Your task to perform on an android device: Open Android settings Image 0: 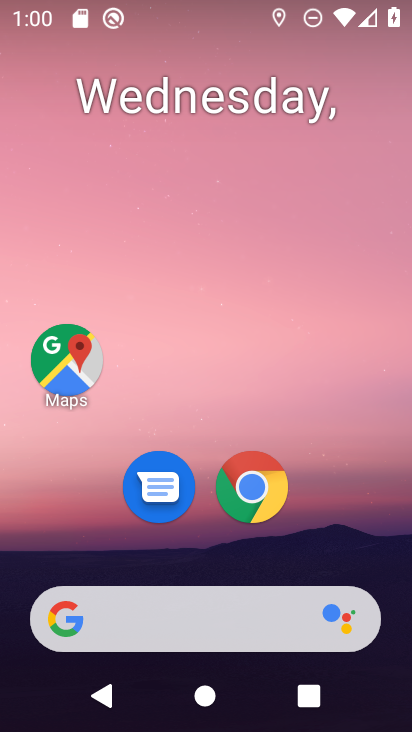
Step 0: drag from (355, 531) to (347, 82)
Your task to perform on an android device: Open Android settings Image 1: 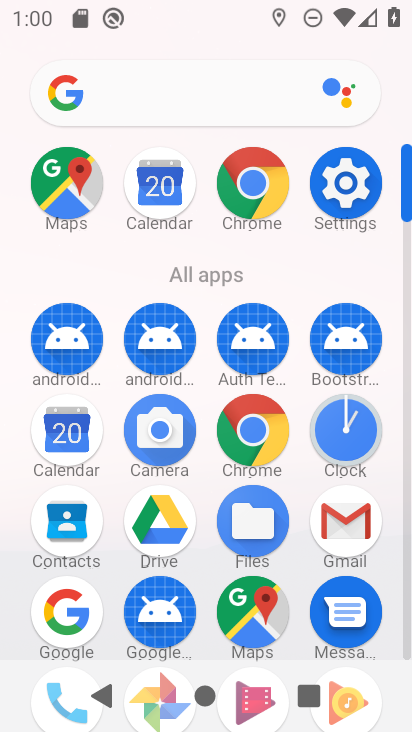
Step 1: click (339, 190)
Your task to perform on an android device: Open Android settings Image 2: 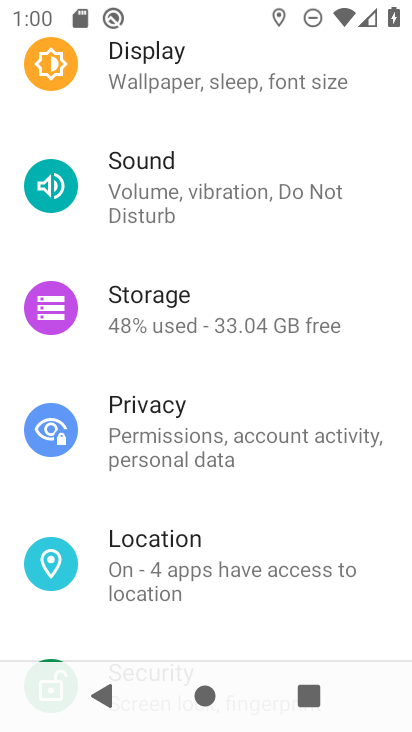
Step 2: drag from (360, 170) to (371, 296)
Your task to perform on an android device: Open Android settings Image 3: 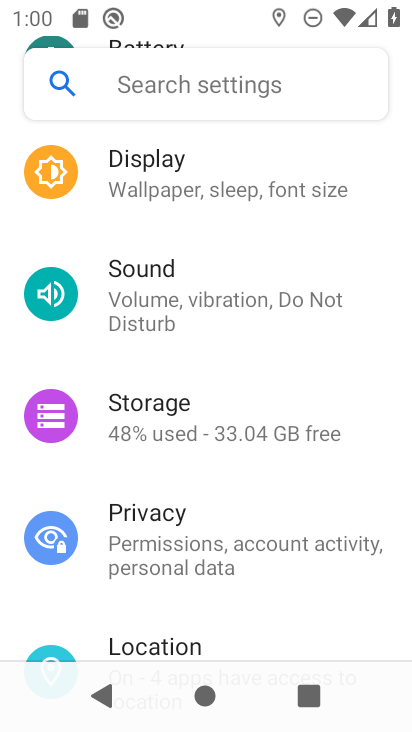
Step 3: drag from (372, 163) to (372, 286)
Your task to perform on an android device: Open Android settings Image 4: 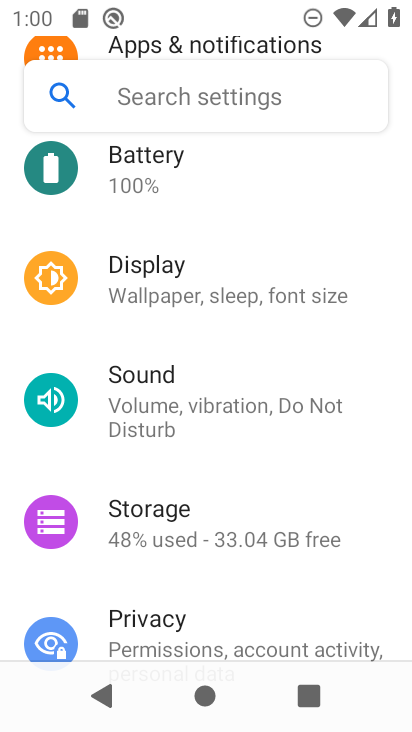
Step 4: drag from (360, 194) to (359, 324)
Your task to perform on an android device: Open Android settings Image 5: 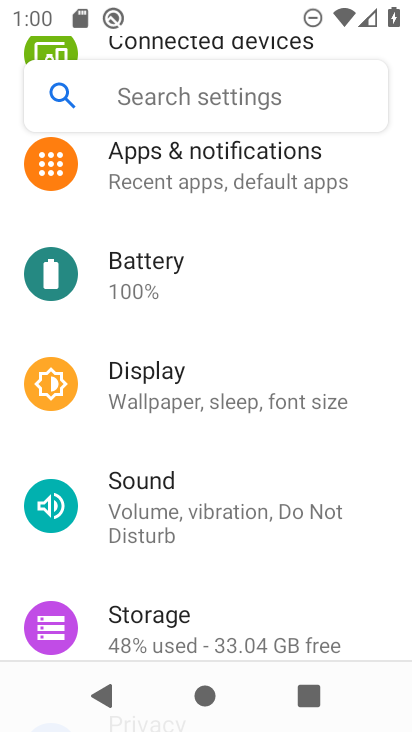
Step 5: drag from (369, 158) to (369, 296)
Your task to perform on an android device: Open Android settings Image 6: 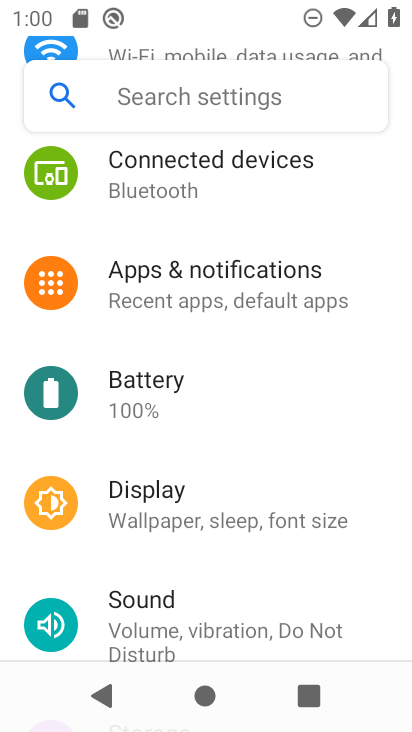
Step 6: drag from (366, 208) to (368, 324)
Your task to perform on an android device: Open Android settings Image 7: 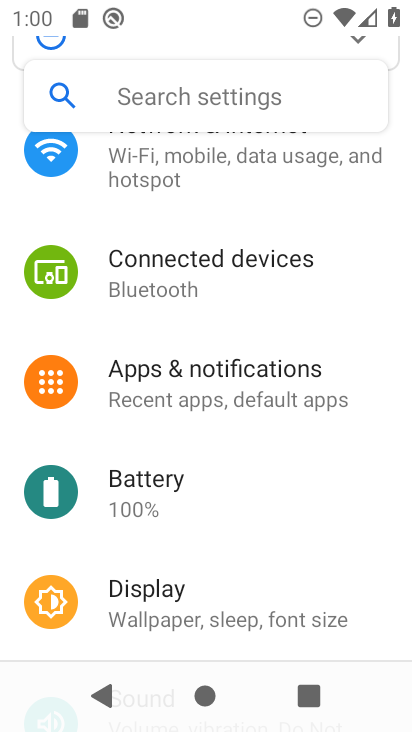
Step 7: drag from (364, 244) to (363, 357)
Your task to perform on an android device: Open Android settings Image 8: 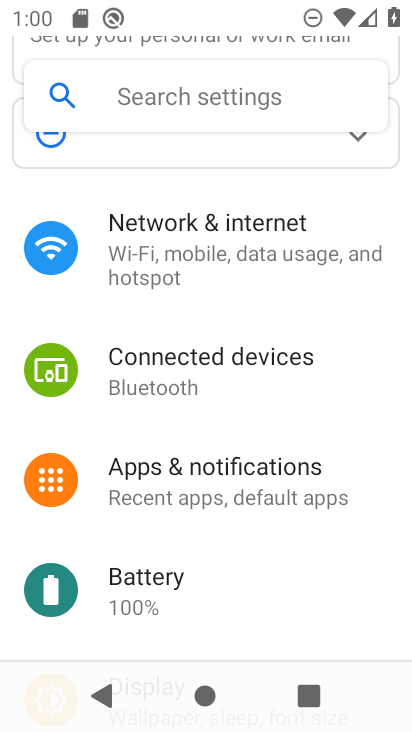
Step 8: drag from (356, 412) to (371, 310)
Your task to perform on an android device: Open Android settings Image 9: 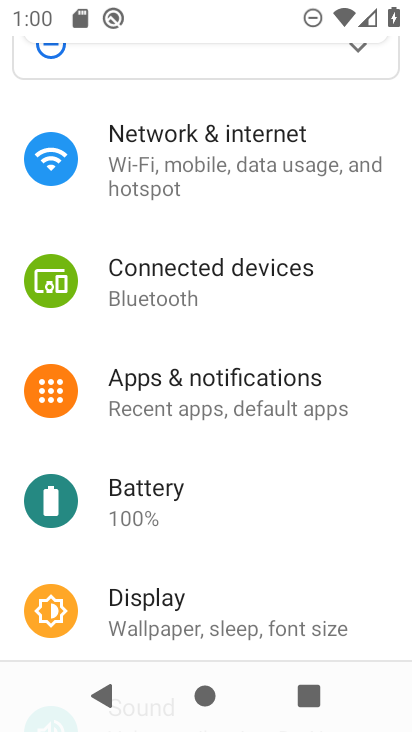
Step 9: drag from (354, 490) to (373, 352)
Your task to perform on an android device: Open Android settings Image 10: 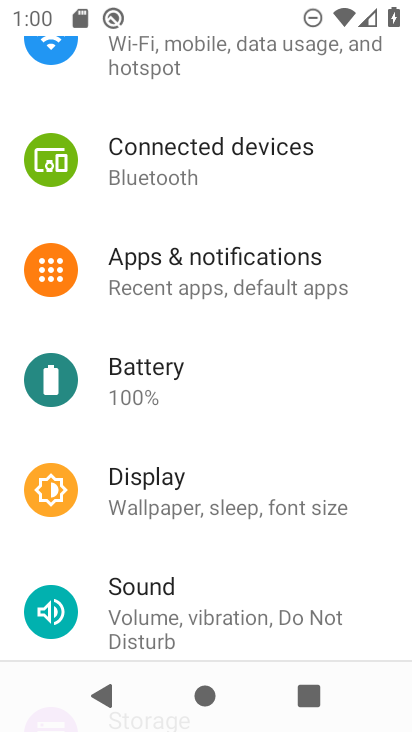
Step 10: drag from (354, 457) to (359, 365)
Your task to perform on an android device: Open Android settings Image 11: 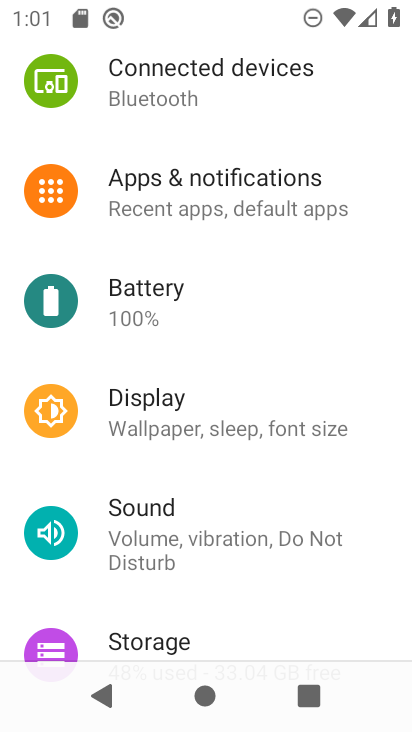
Step 11: drag from (343, 588) to (346, 501)
Your task to perform on an android device: Open Android settings Image 12: 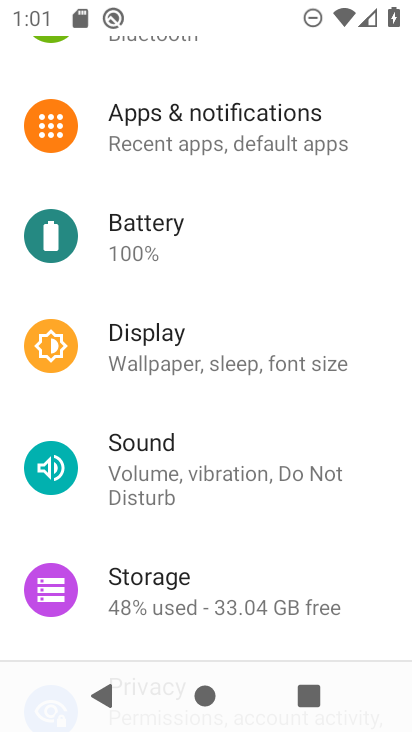
Step 12: drag from (349, 577) to (349, 378)
Your task to perform on an android device: Open Android settings Image 13: 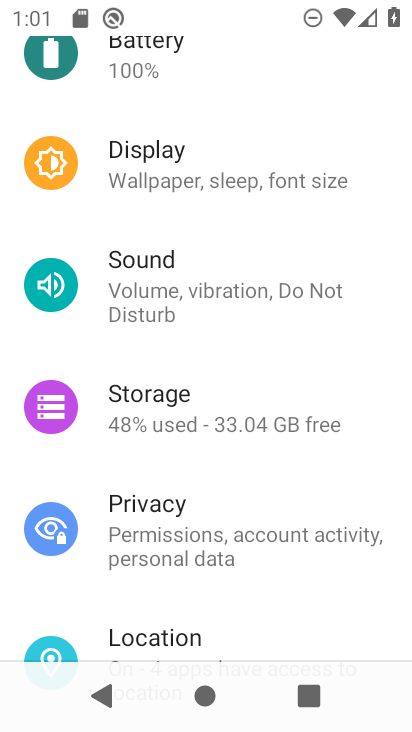
Step 13: drag from (321, 561) to (318, 430)
Your task to perform on an android device: Open Android settings Image 14: 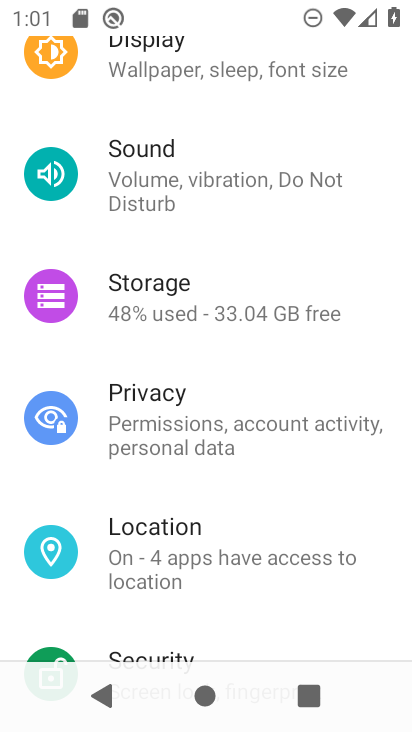
Step 14: drag from (316, 600) to (312, 433)
Your task to perform on an android device: Open Android settings Image 15: 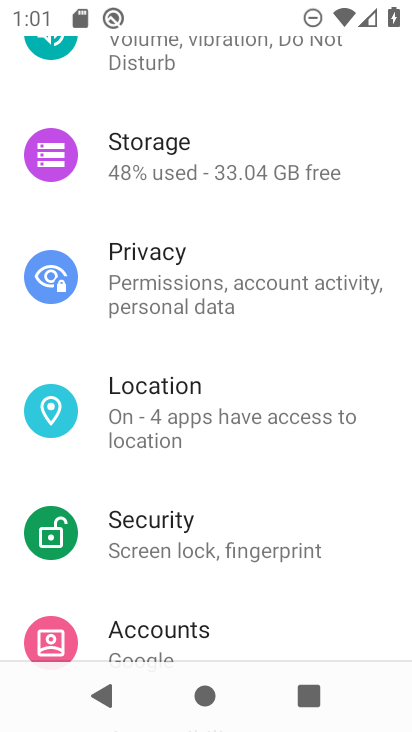
Step 15: drag from (315, 606) to (318, 456)
Your task to perform on an android device: Open Android settings Image 16: 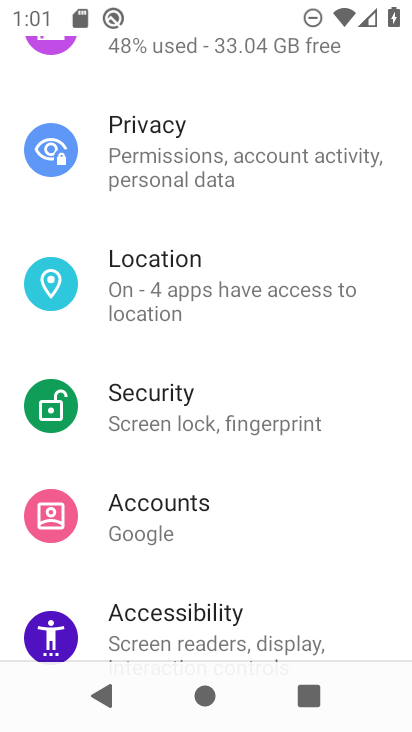
Step 16: drag from (312, 598) to (315, 464)
Your task to perform on an android device: Open Android settings Image 17: 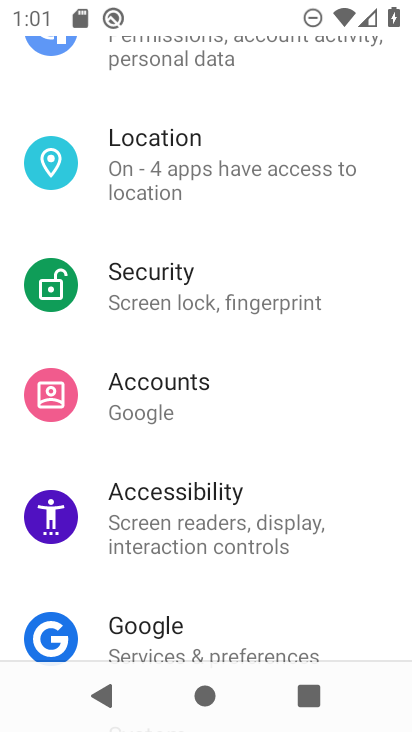
Step 17: drag from (323, 610) to (341, 358)
Your task to perform on an android device: Open Android settings Image 18: 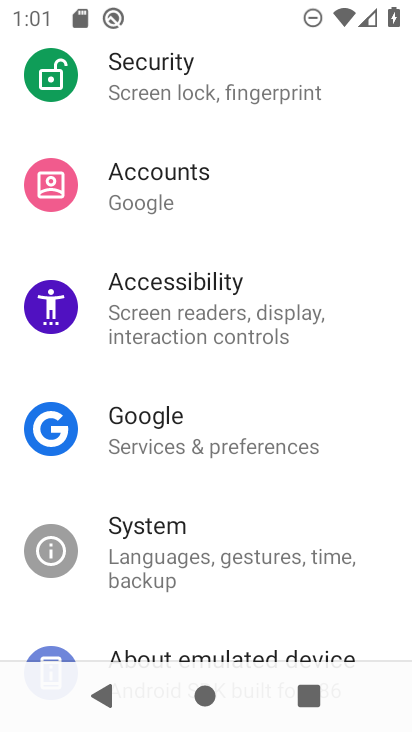
Step 18: click (314, 564)
Your task to perform on an android device: Open Android settings Image 19: 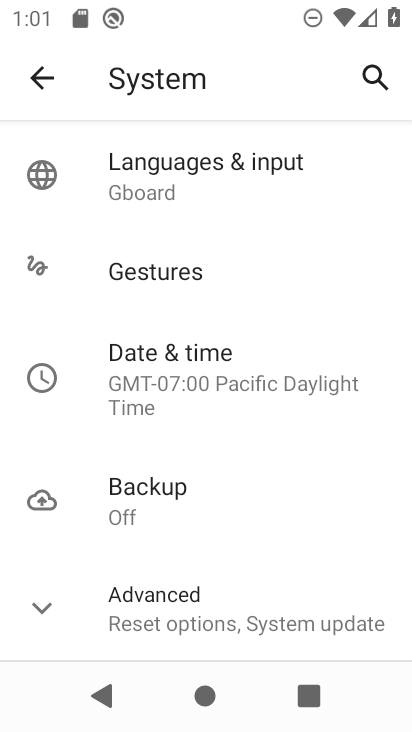
Step 19: click (301, 605)
Your task to perform on an android device: Open Android settings Image 20: 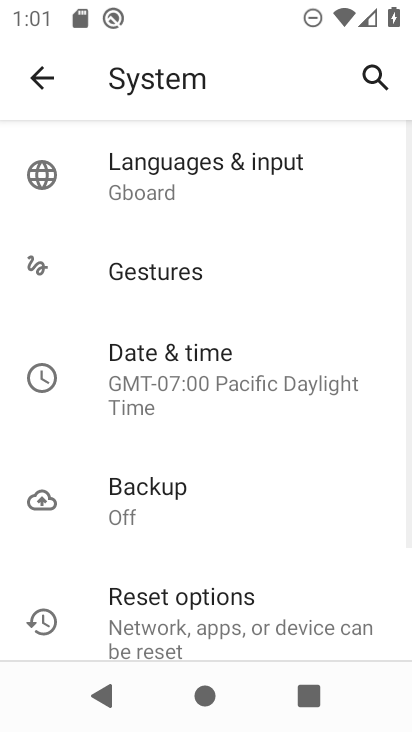
Step 20: task complete